Your task to perform on an android device: Turn on the flashlight Image 0: 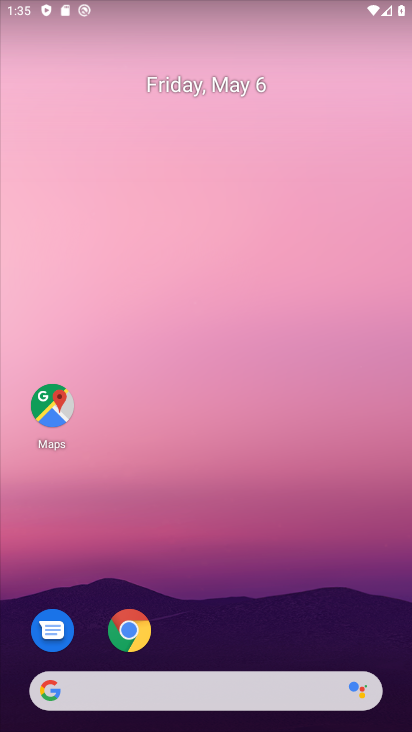
Step 0: drag from (211, 15) to (277, 527)
Your task to perform on an android device: Turn on the flashlight Image 1: 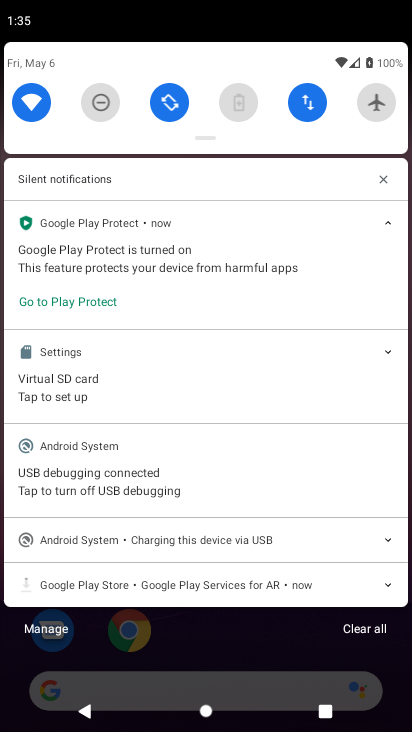
Step 1: task complete